Your task to perform on an android device: turn on javascript in the chrome app Image 0: 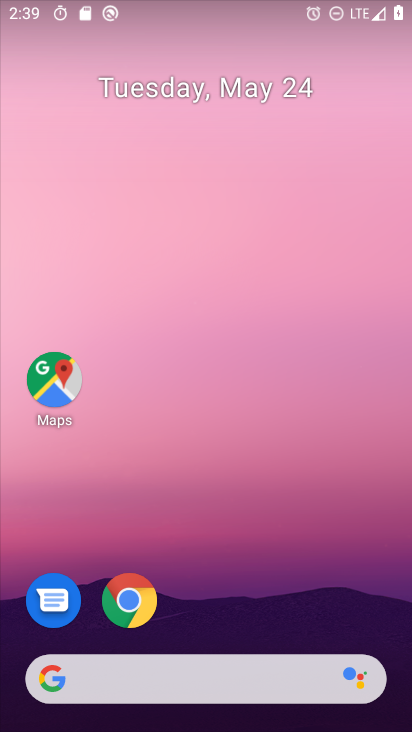
Step 0: click (128, 599)
Your task to perform on an android device: turn on javascript in the chrome app Image 1: 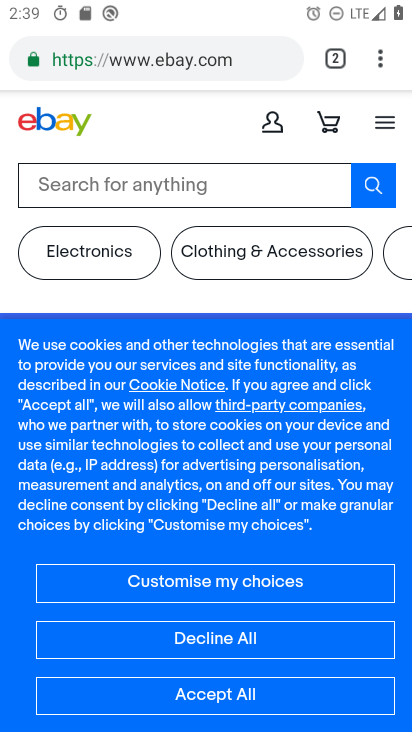
Step 1: click (378, 49)
Your task to perform on an android device: turn on javascript in the chrome app Image 2: 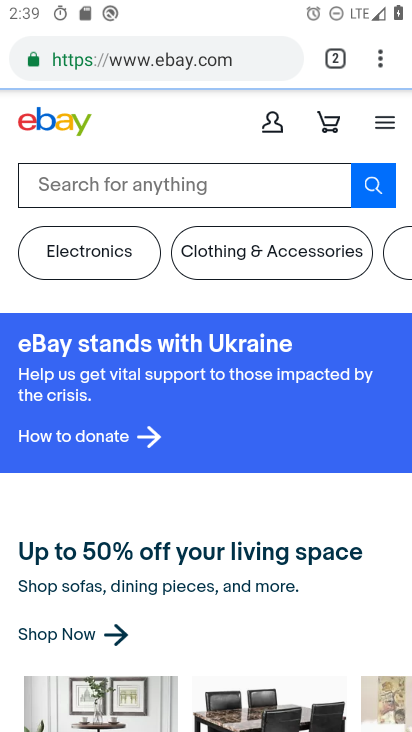
Step 2: drag from (378, 66) to (213, 616)
Your task to perform on an android device: turn on javascript in the chrome app Image 3: 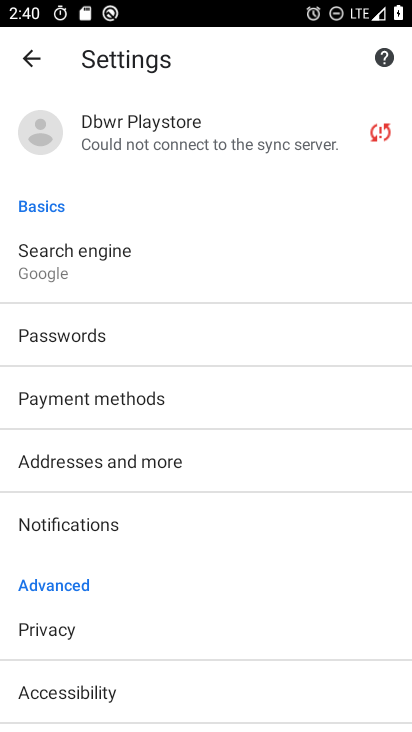
Step 3: drag from (170, 616) to (220, 220)
Your task to perform on an android device: turn on javascript in the chrome app Image 4: 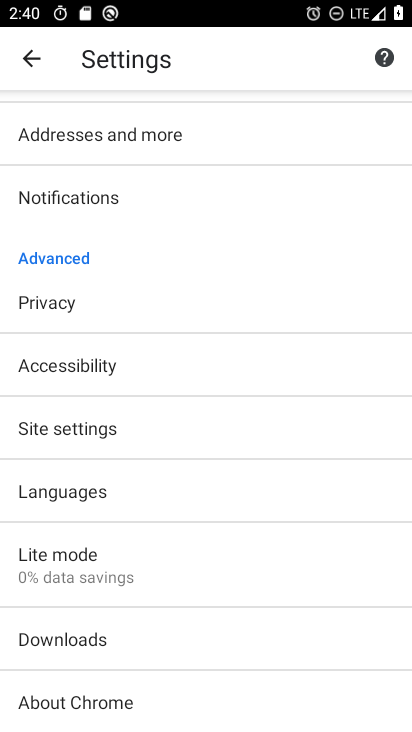
Step 4: click (74, 430)
Your task to perform on an android device: turn on javascript in the chrome app Image 5: 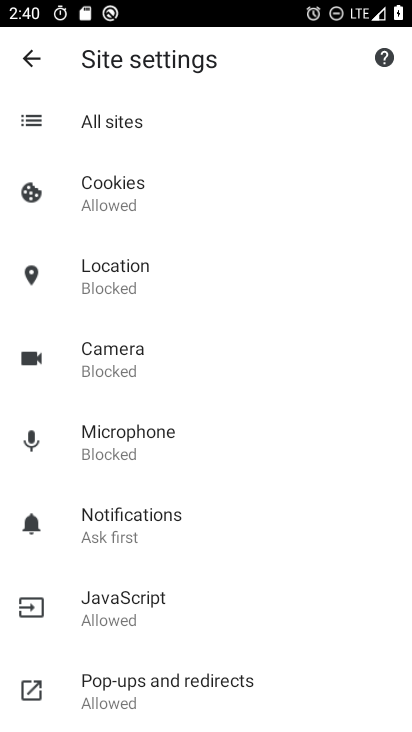
Step 5: click (153, 600)
Your task to perform on an android device: turn on javascript in the chrome app Image 6: 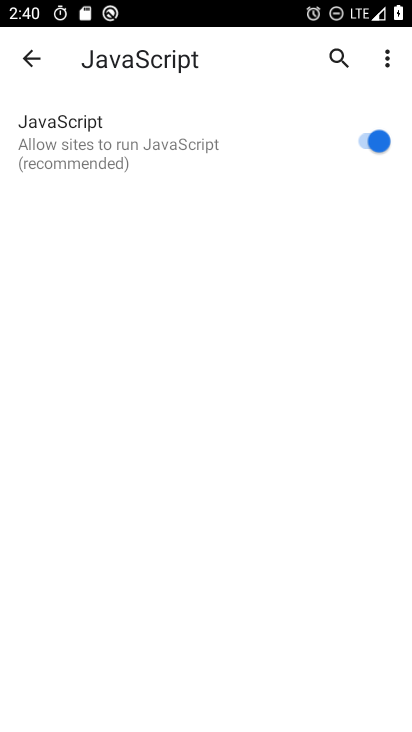
Step 6: task complete